Your task to perform on an android device: What's on my calendar tomorrow? Image 0: 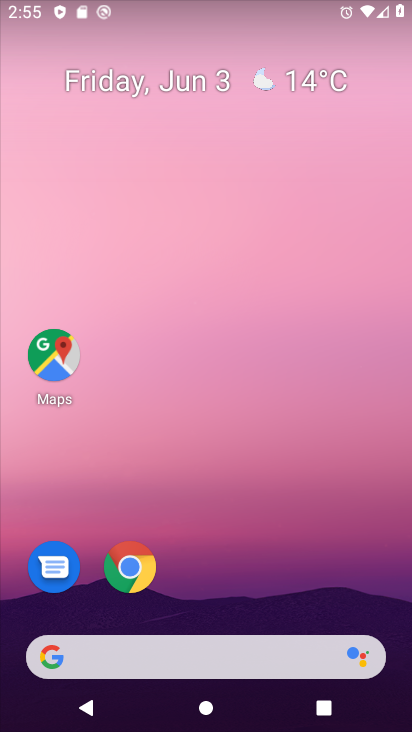
Step 0: drag from (240, 663) to (273, 185)
Your task to perform on an android device: What's on my calendar tomorrow? Image 1: 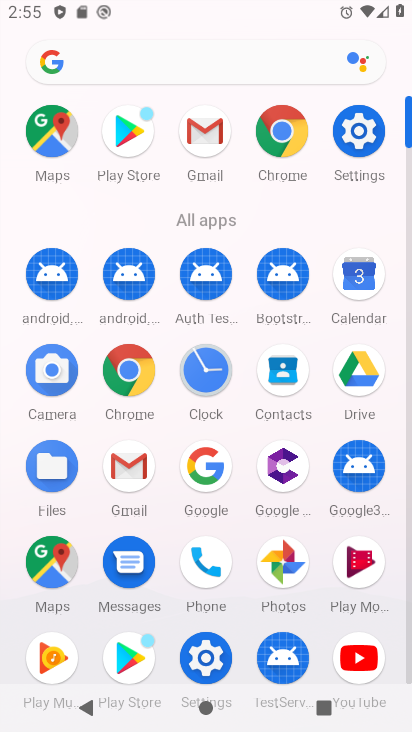
Step 1: click (279, 374)
Your task to perform on an android device: What's on my calendar tomorrow? Image 2: 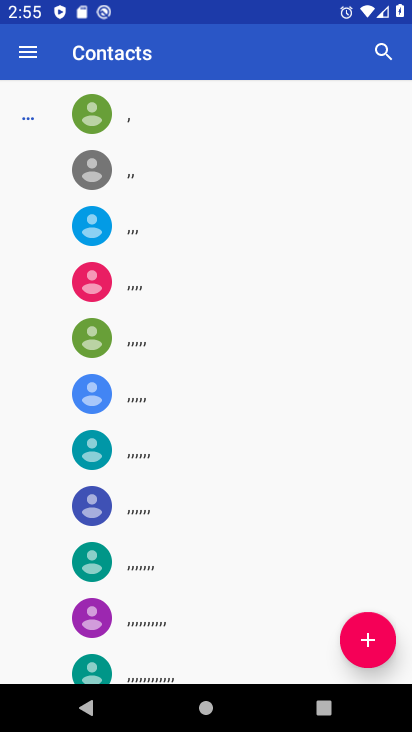
Step 2: press home button
Your task to perform on an android device: What's on my calendar tomorrow? Image 3: 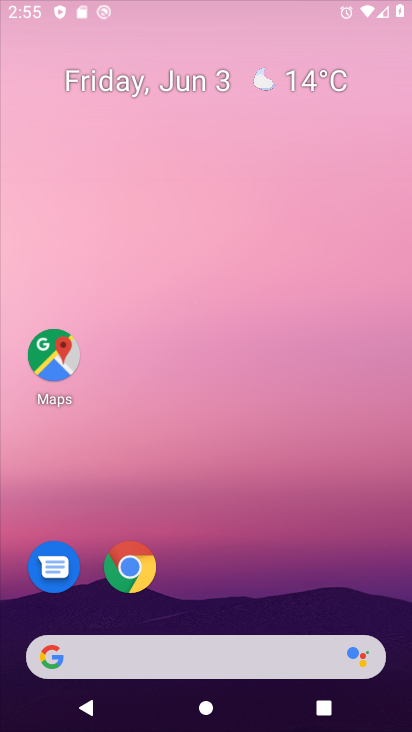
Step 3: drag from (251, 669) to (262, 96)
Your task to perform on an android device: What's on my calendar tomorrow? Image 4: 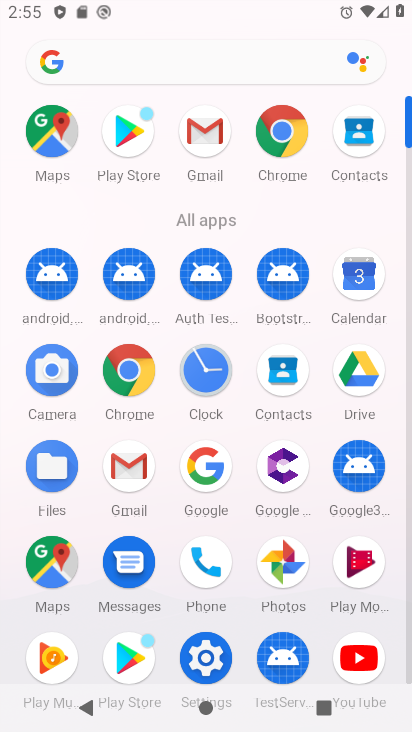
Step 4: click (357, 286)
Your task to perform on an android device: What's on my calendar tomorrow? Image 5: 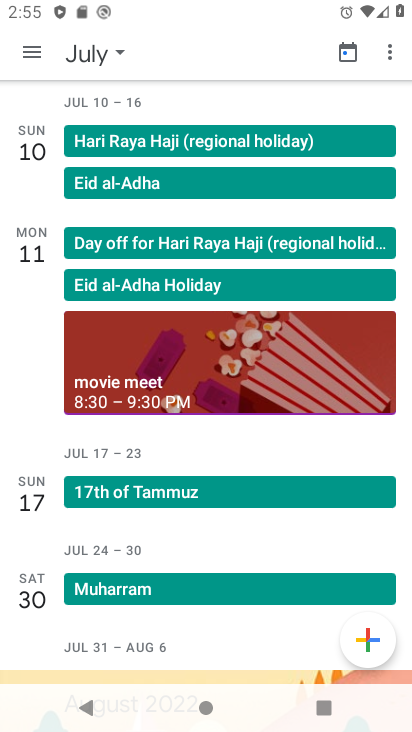
Step 5: click (26, 49)
Your task to perform on an android device: What's on my calendar tomorrow? Image 6: 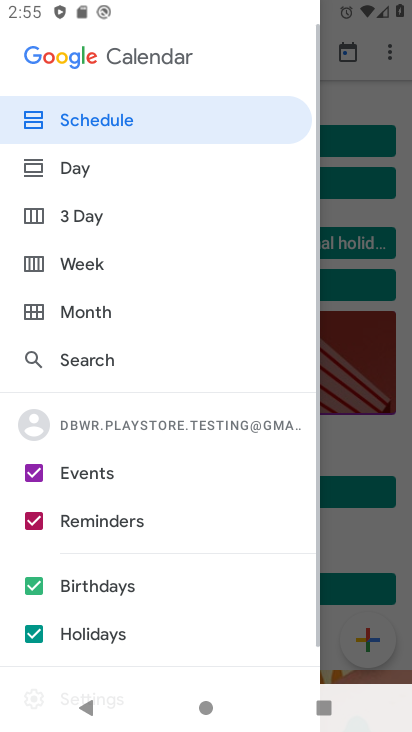
Step 6: click (104, 311)
Your task to perform on an android device: What's on my calendar tomorrow? Image 7: 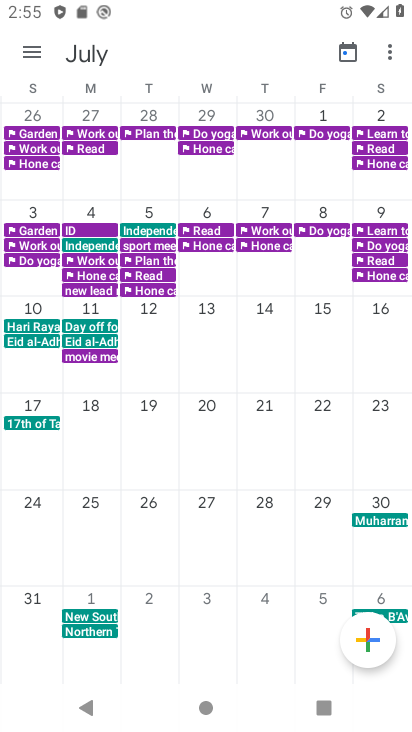
Step 7: drag from (85, 363) to (406, 418)
Your task to perform on an android device: What's on my calendar tomorrow? Image 8: 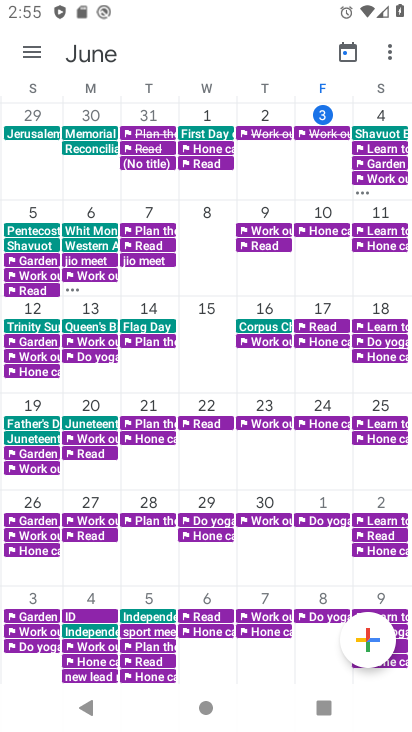
Step 8: click (375, 122)
Your task to perform on an android device: What's on my calendar tomorrow? Image 9: 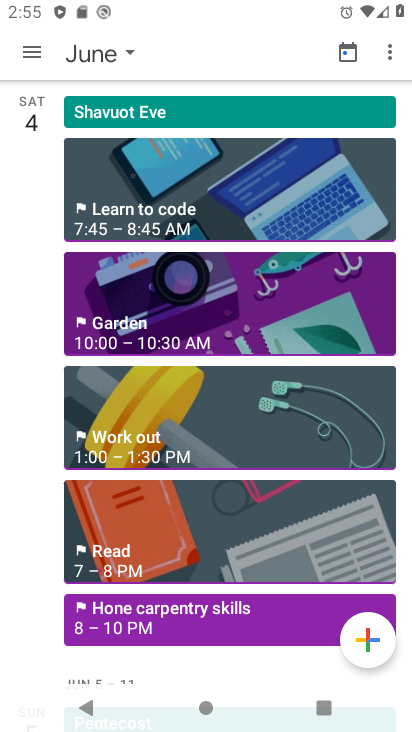
Step 9: task complete